Your task to perform on an android device: set default search engine in the chrome app Image 0: 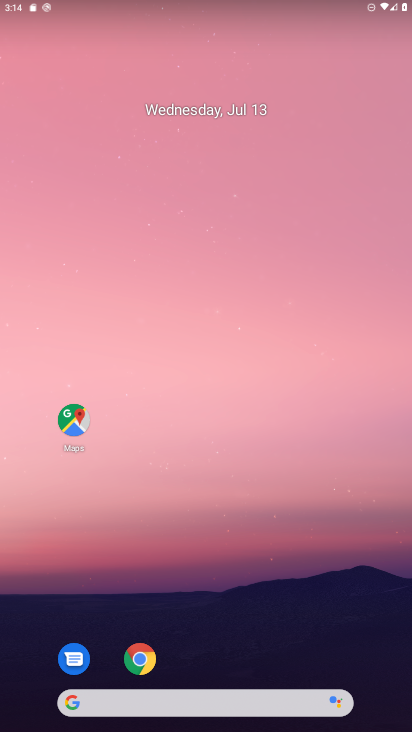
Step 0: click (140, 656)
Your task to perform on an android device: set default search engine in the chrome app Image 1: 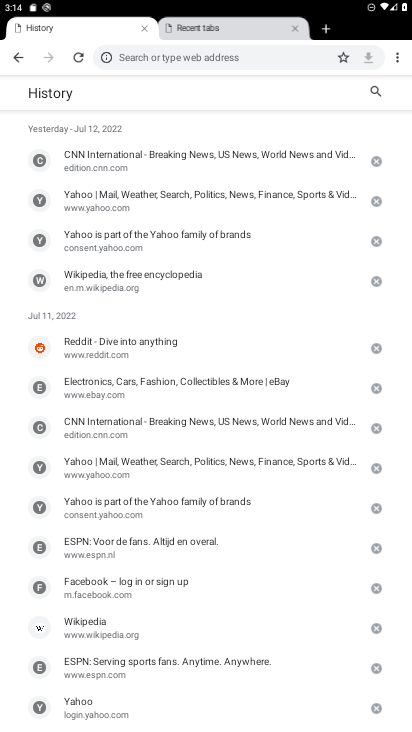
Step 1: click (395, 55)
Your task to perform on an android device: set default search engine in the chrome app Image 2: 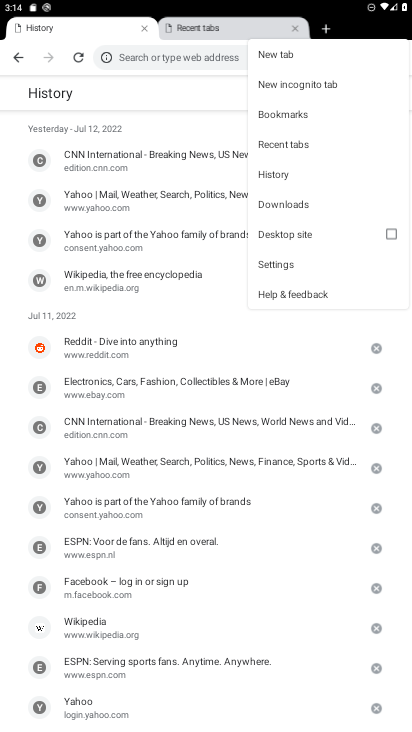
Step 2: click (278, 265)
Your task to perform on an android device: set default search engine in the chrome app Image 3: 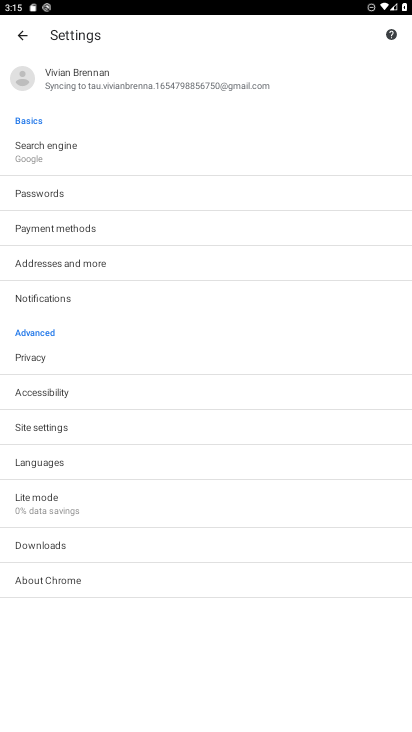
Step 3: click (28, 143)
Your task to perform on an android device: set default search engine in the chrome app Image 4: 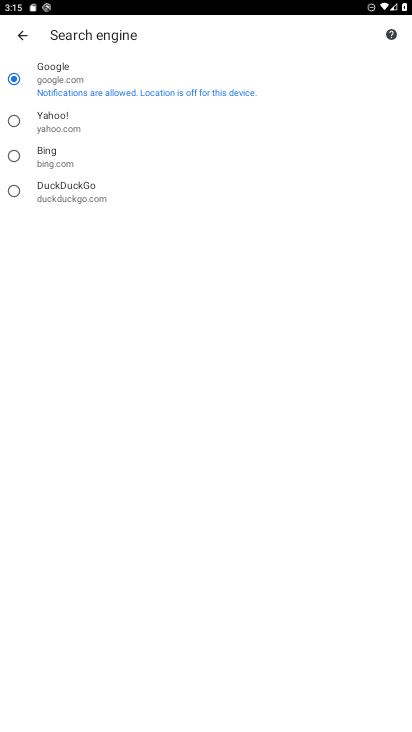
Step 4: click (9, 116)
Your task to perform on an android device: set default search engine in the chrome app Image 5: 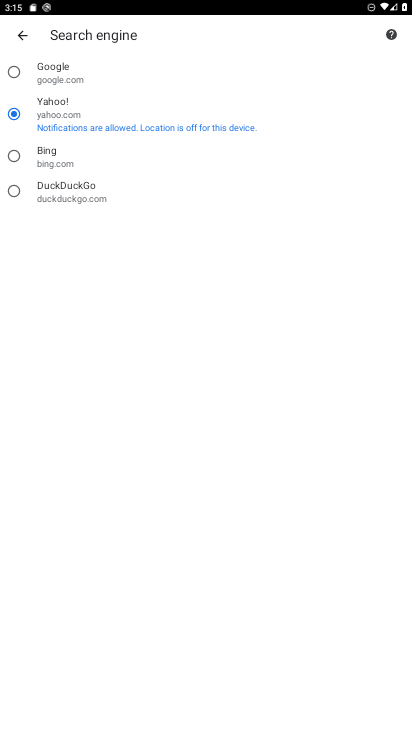
Step 5: task complete